Your task to perform on an android device: Open wifi settings Image 0: 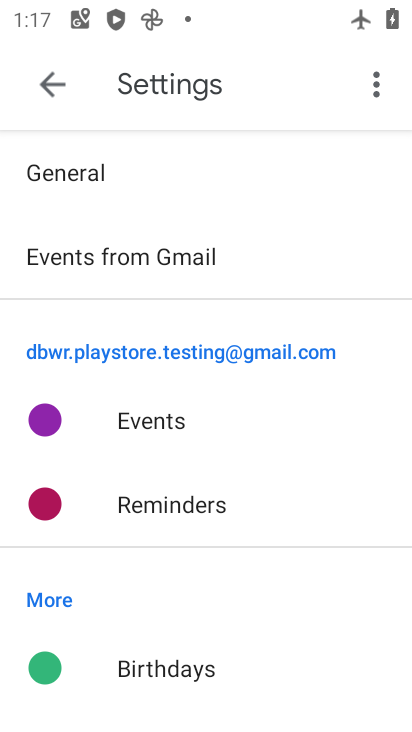
Step 0: press home button
Your task to perform on an android device: Open wifi settings Image 1: 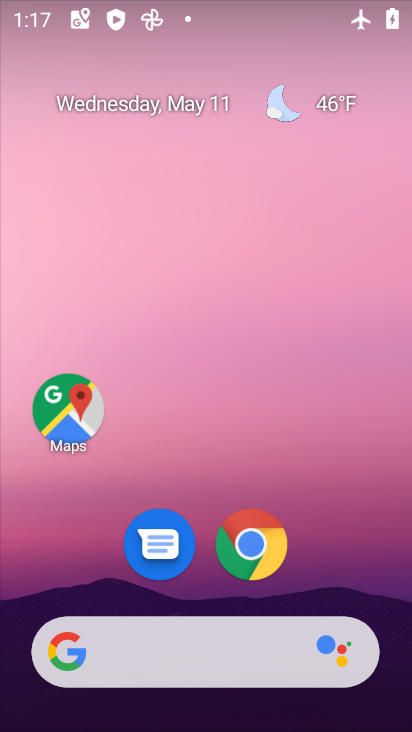
Step 1: drag from (400, 638) to (291, 72)
Your task to perform on an android device: Open wifi settings Image 2: 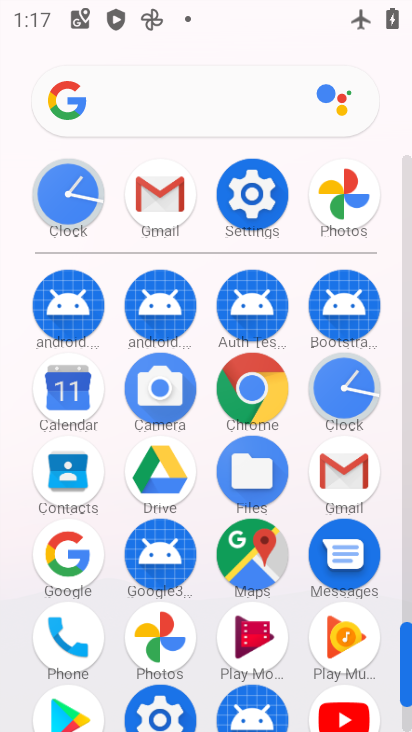
Step 2: click (406, 596)
Your task to perform on an android device: Open wifi settings Image 3: 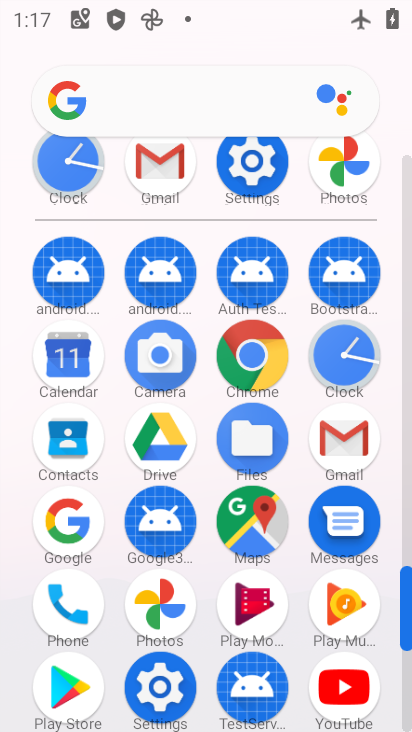
Step 3: click (161, 685)
Your task to perform on an android device: Open wifi settings Image 4: 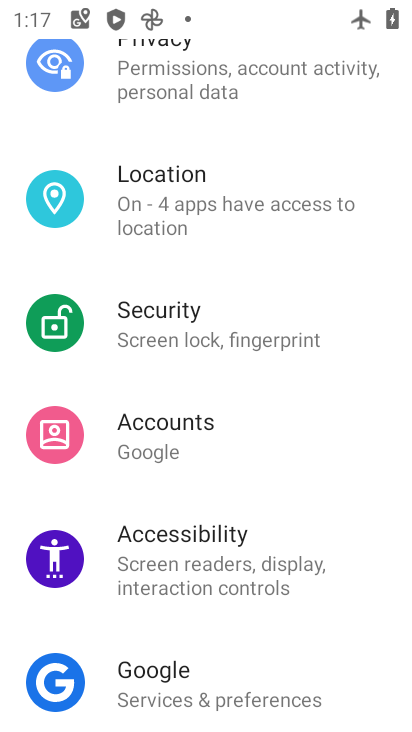
Step 4: drag from (372, 156) to (378, 449)
Your task to perform on an android device: Open wifi settings Image 5: 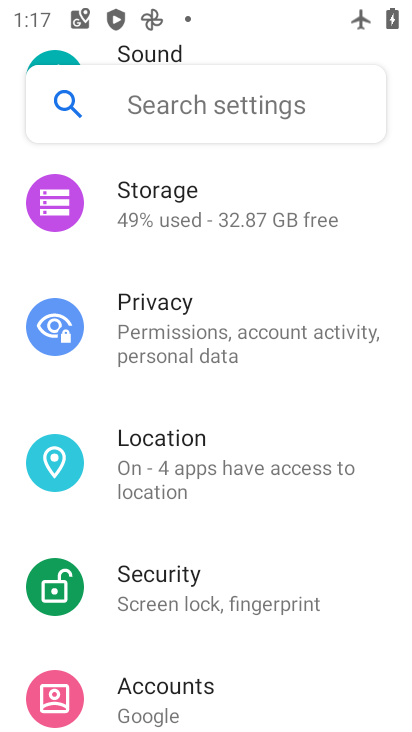
Step 5: drag from (341, 188) to (361, 475)
Your task to perform on an android device: Open wifi settings Image 6: 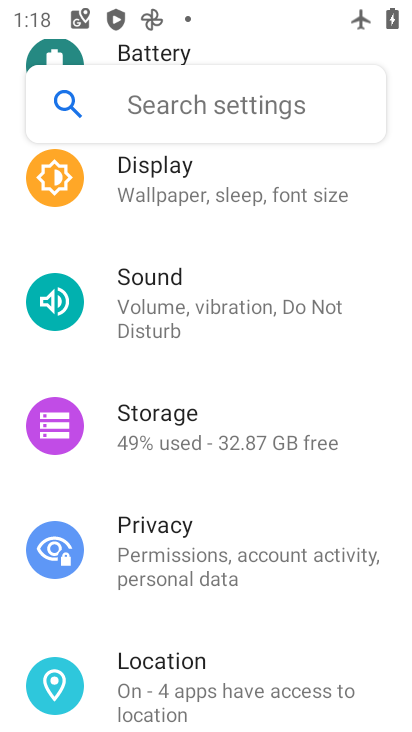
Step 6: drag from (362, 171) to (355, 552)
Your task to perform on an android device: Open wifi settings Image 7: 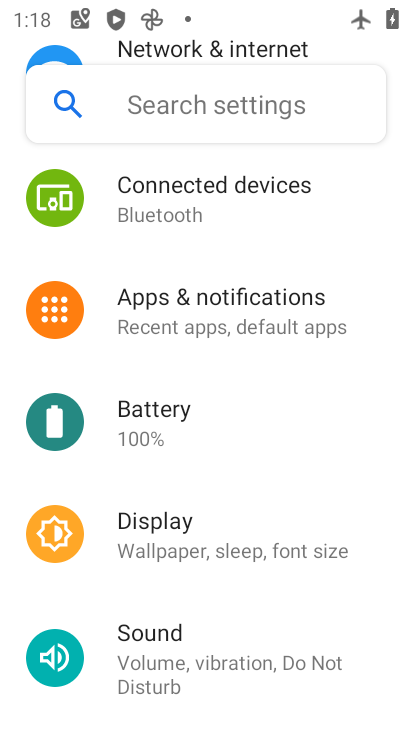
Step 7: drag from (341, 194) to (338, 570)
Your task to perform on an android device: Open wifi settings Image 8: 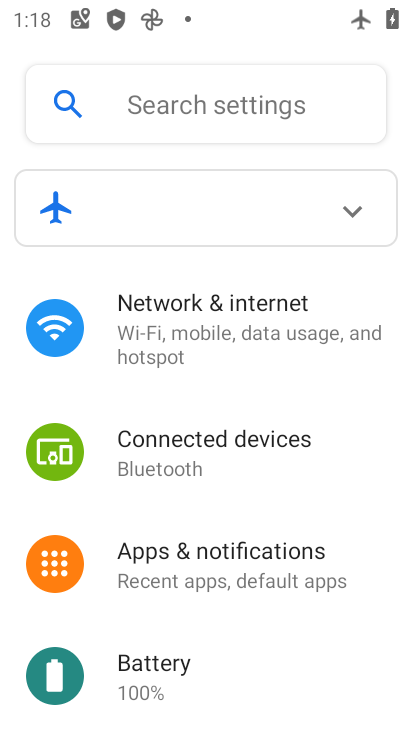
Step 8: click (153, 311)
Your task to perform on an android device: Open wifi settings Image 9: 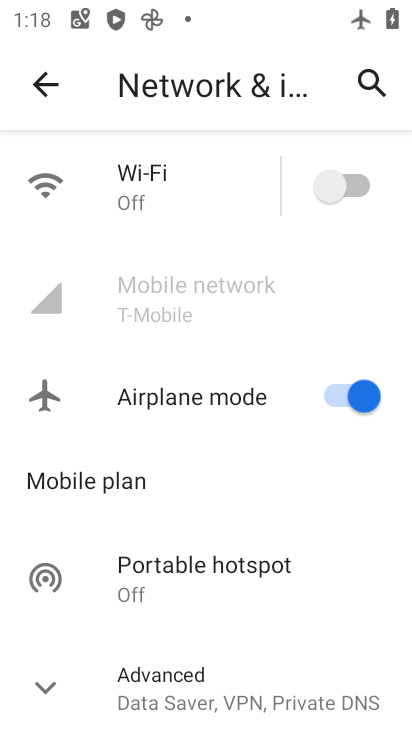
Step 9: click (119, 173)
Your task to perform on an android device: Open wifi settings Image 10: 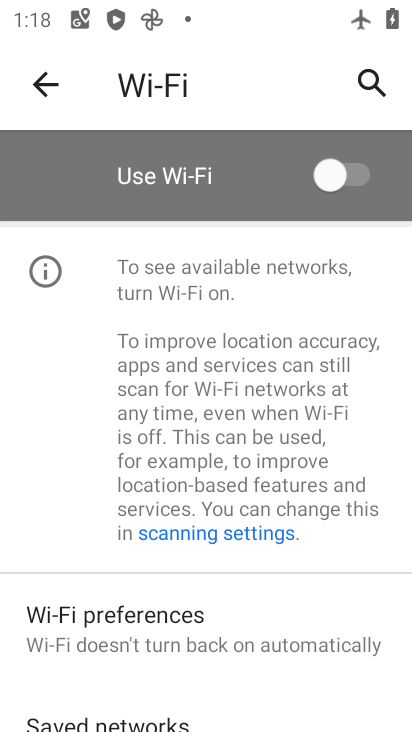
Step 10: task complete